Your task to perform on an android device: remove spam from my inbox in the gmail app Image 0: 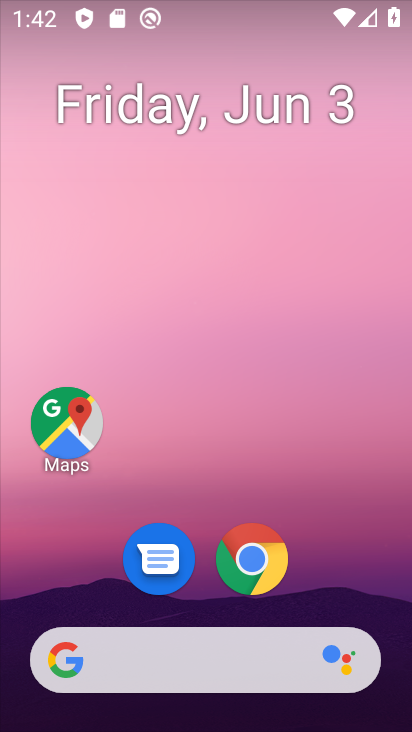
Step 0: drag from (365, 576) to (351, 63)
Your task to perform on an android device: remove spam from my inbox in the gmail app Image 1: 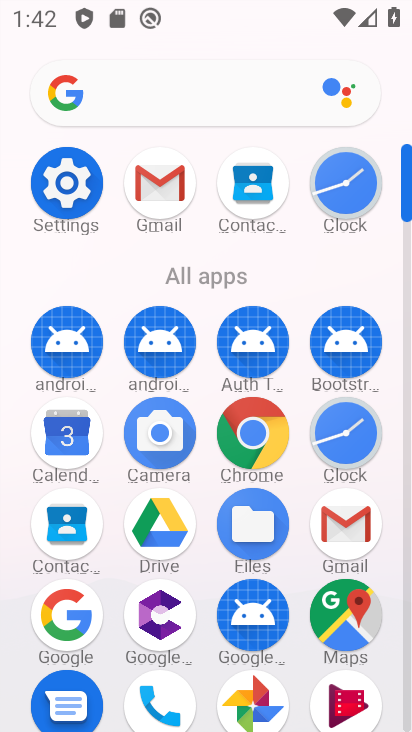
Step 1: click (142, 174)
Your task to perform on an android device: remove spam from my inbox in the gmail app Image 2: 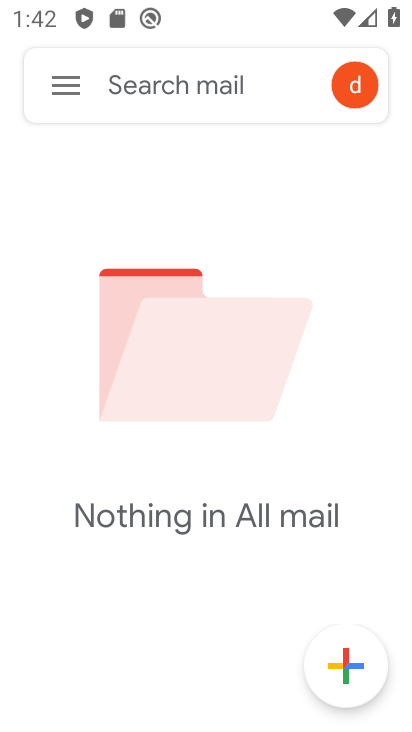
Step 2: click (72, 90)
Your task to perform on an android device: remove spam from my inbox in the gmail app Image 3: 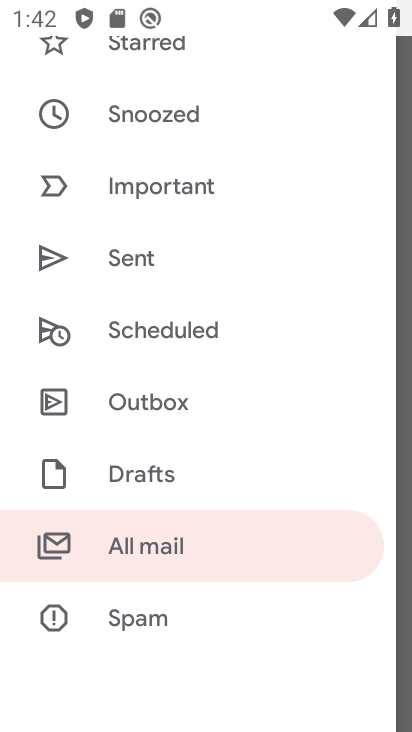
Step 3: click (155, 608)
Your task to perform on an android device: remove spam from my inbox in the gmail app Image 4: 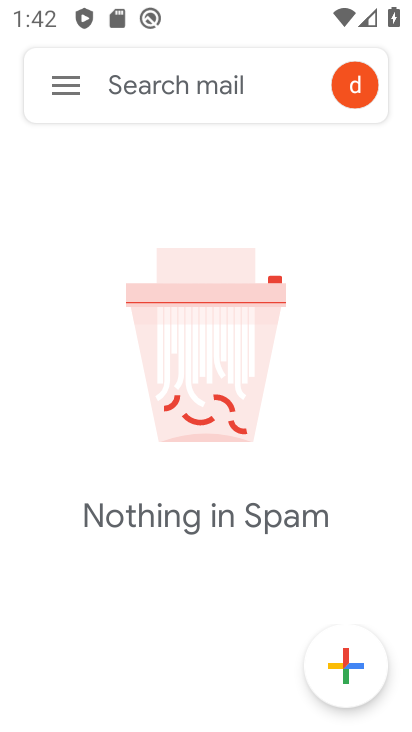
Step 4: task complete